Your task to perform on an android device: check storage Image 0: 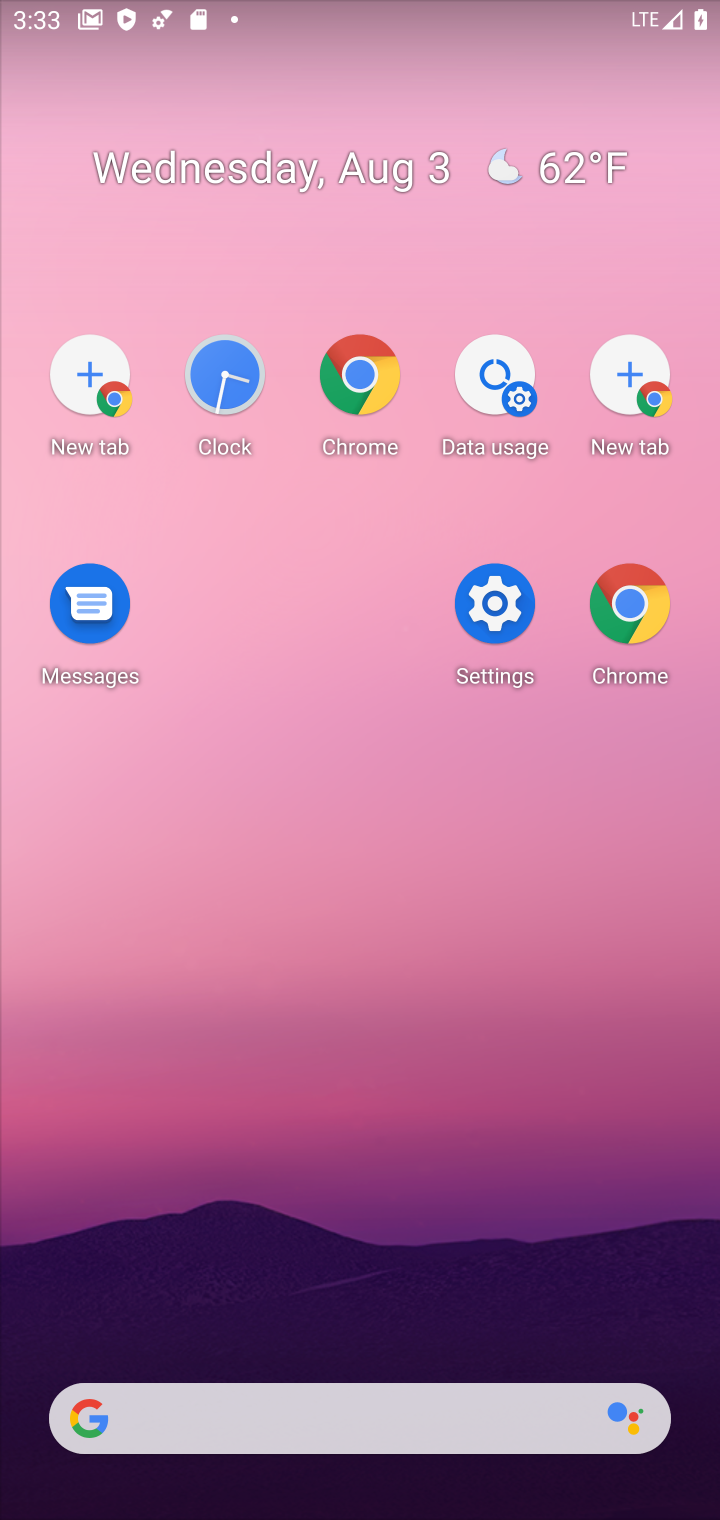
Step 0: press back button
Your task to perform on an android device: check storage Image 1: 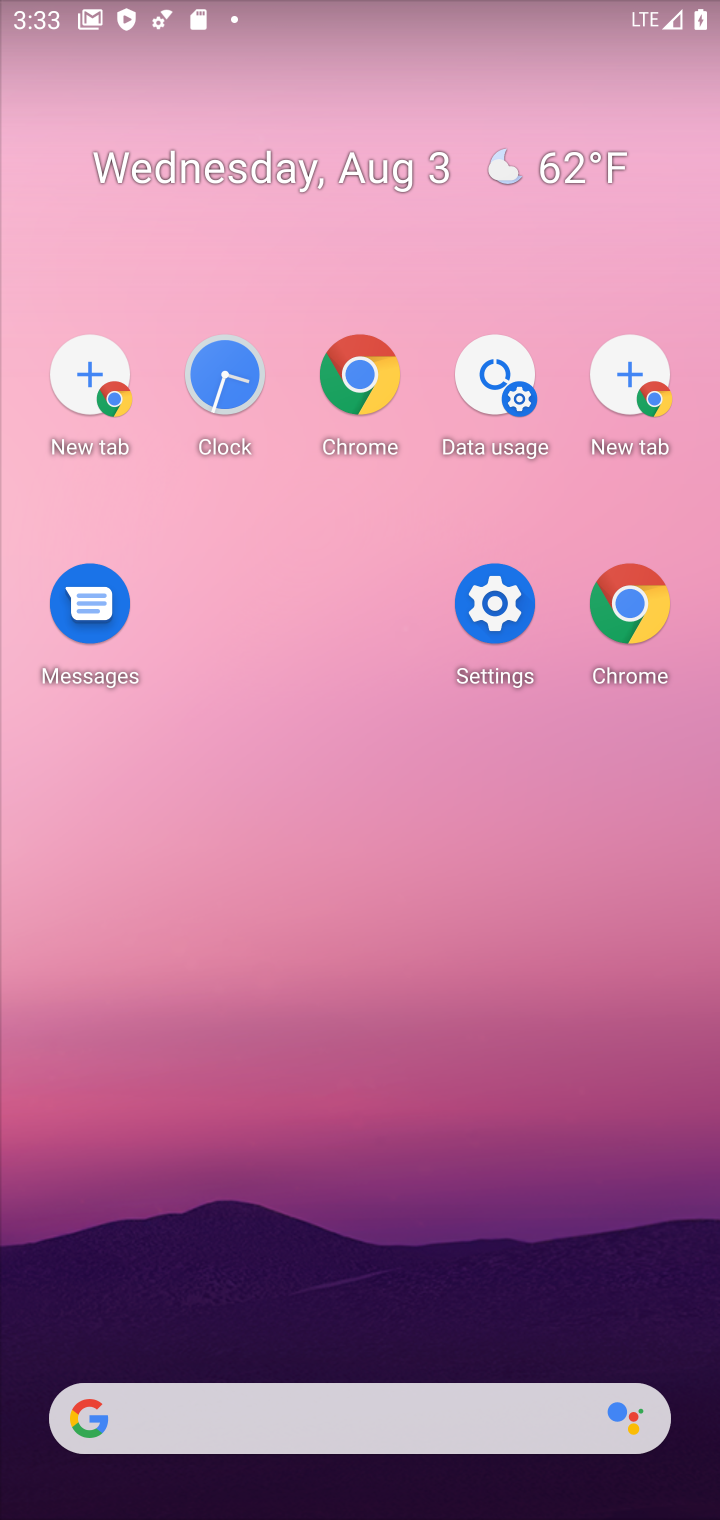
Step 1: click (691, 151)
Your task to perform on an android device: check storage Image 2: 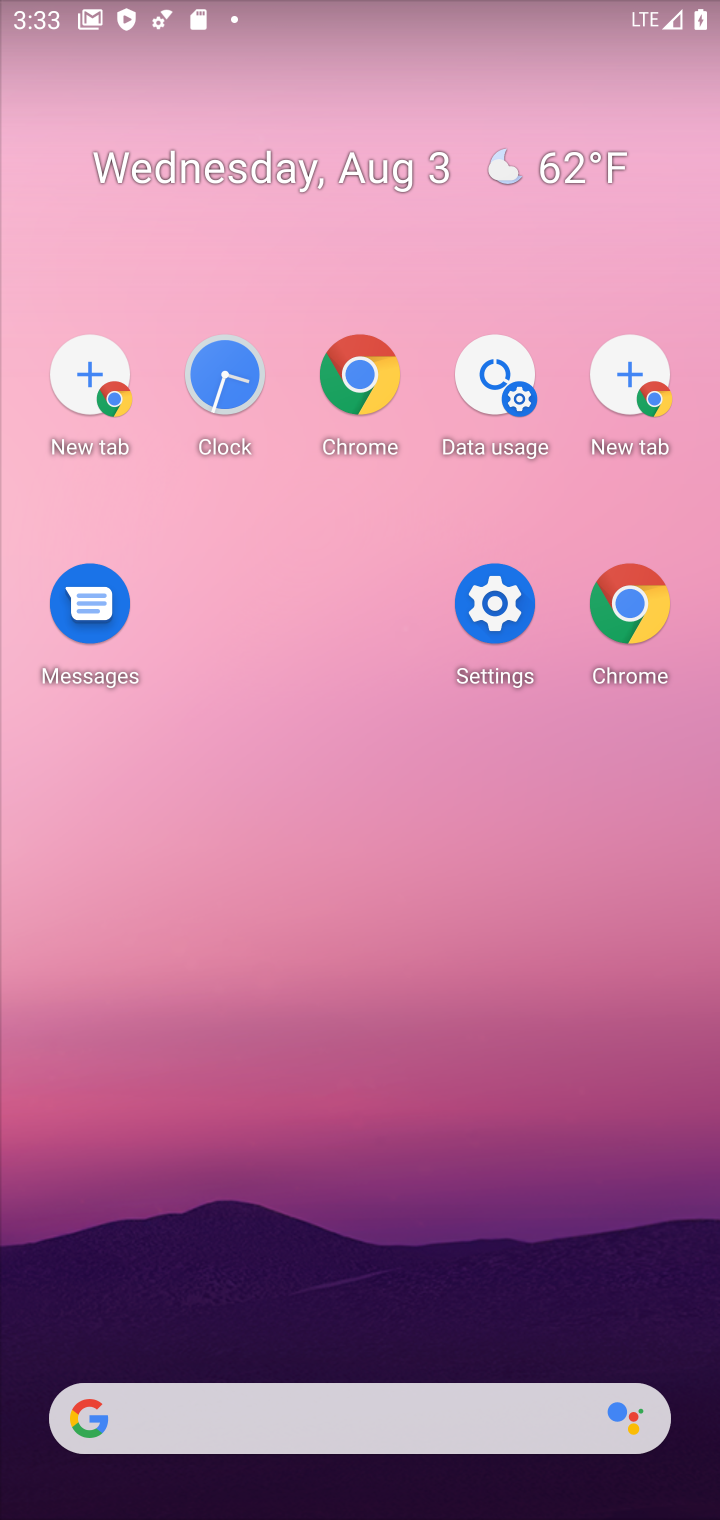
Step 2: drag from (440, 727) to (404, 138)
Your task to perform on an android device: check storage Image 3: 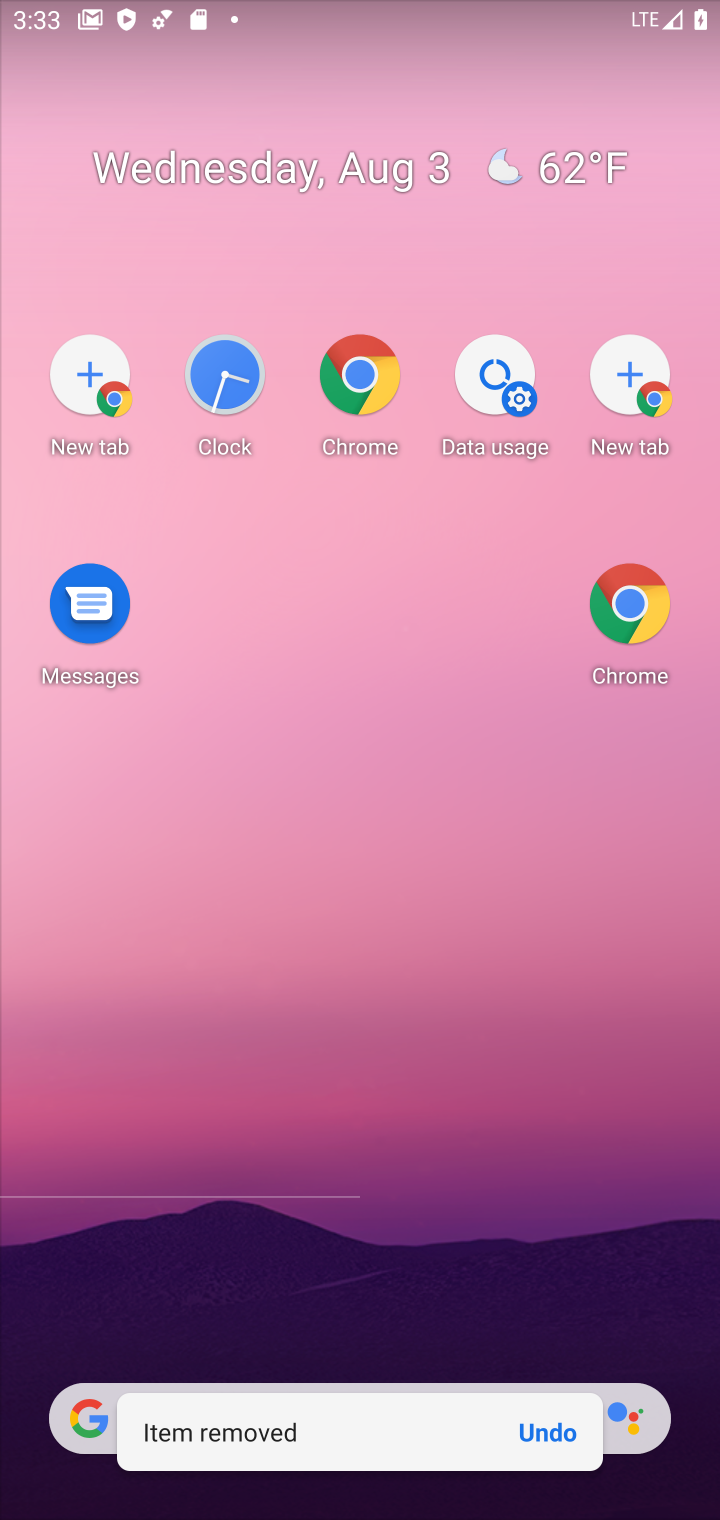
Step 3: drag from (128, 1235) to (478, 420)
Your task to perform on an android device: check storage Image 4: 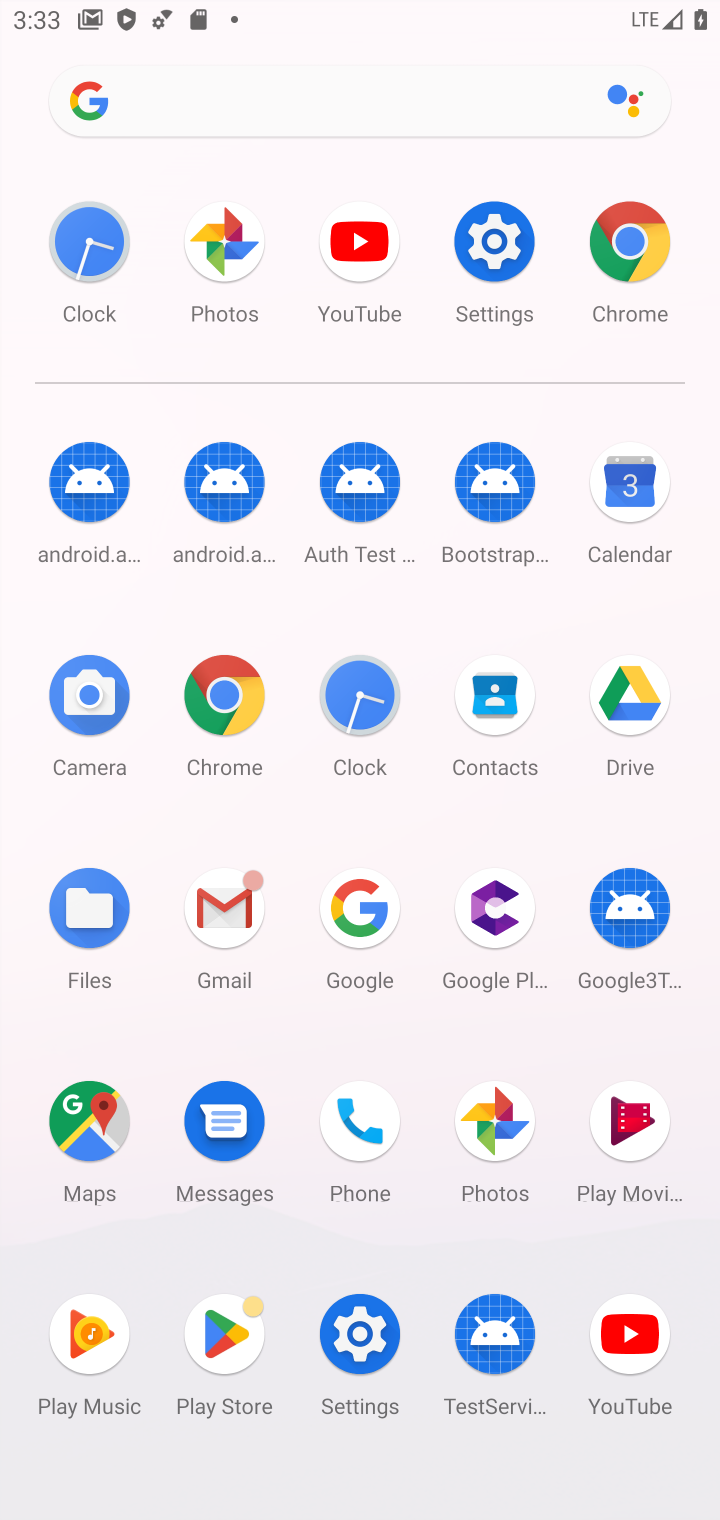
Step 4: click (365, 1308)
Your task to perform on an android device: check storage Image 5: 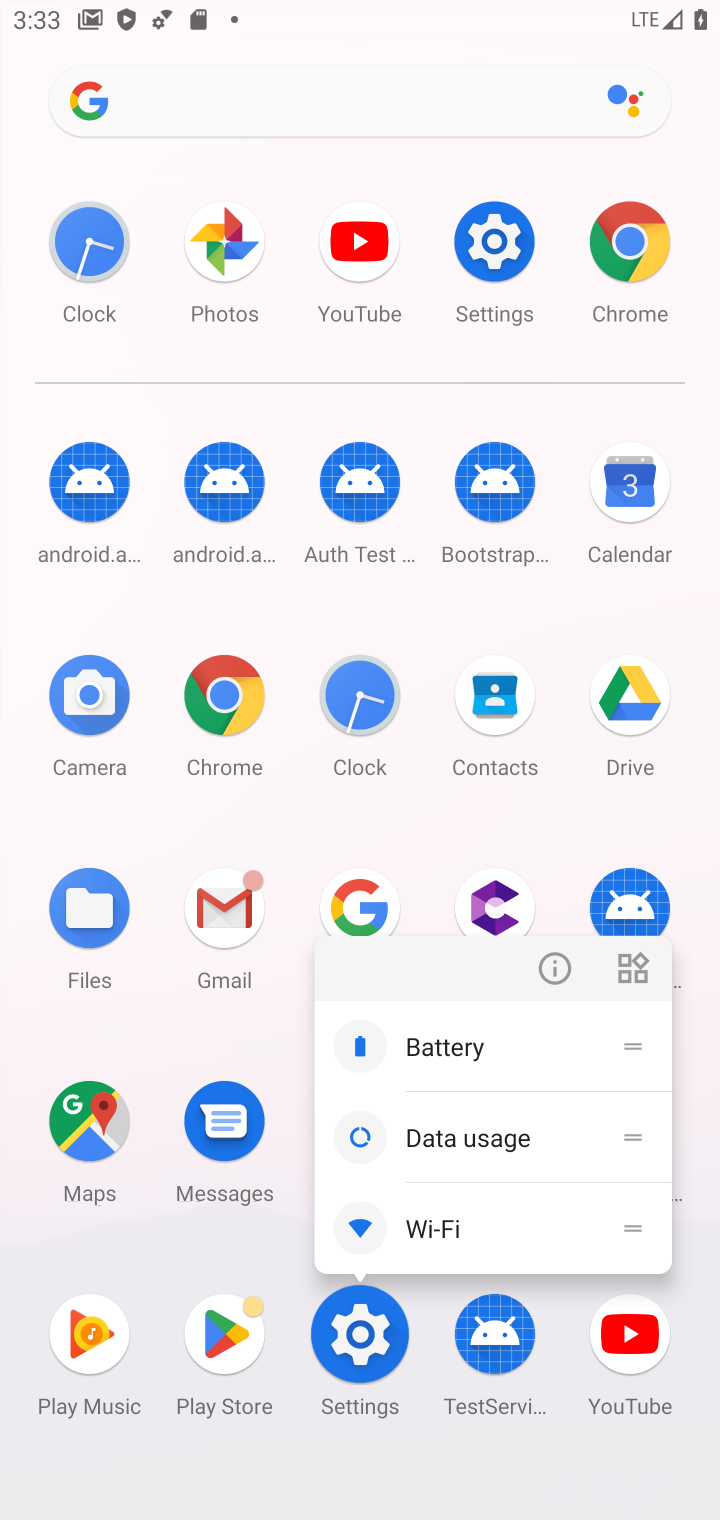
Step 5: click (368, 1312)
Your task to perform on an android device: check storage Image 6: 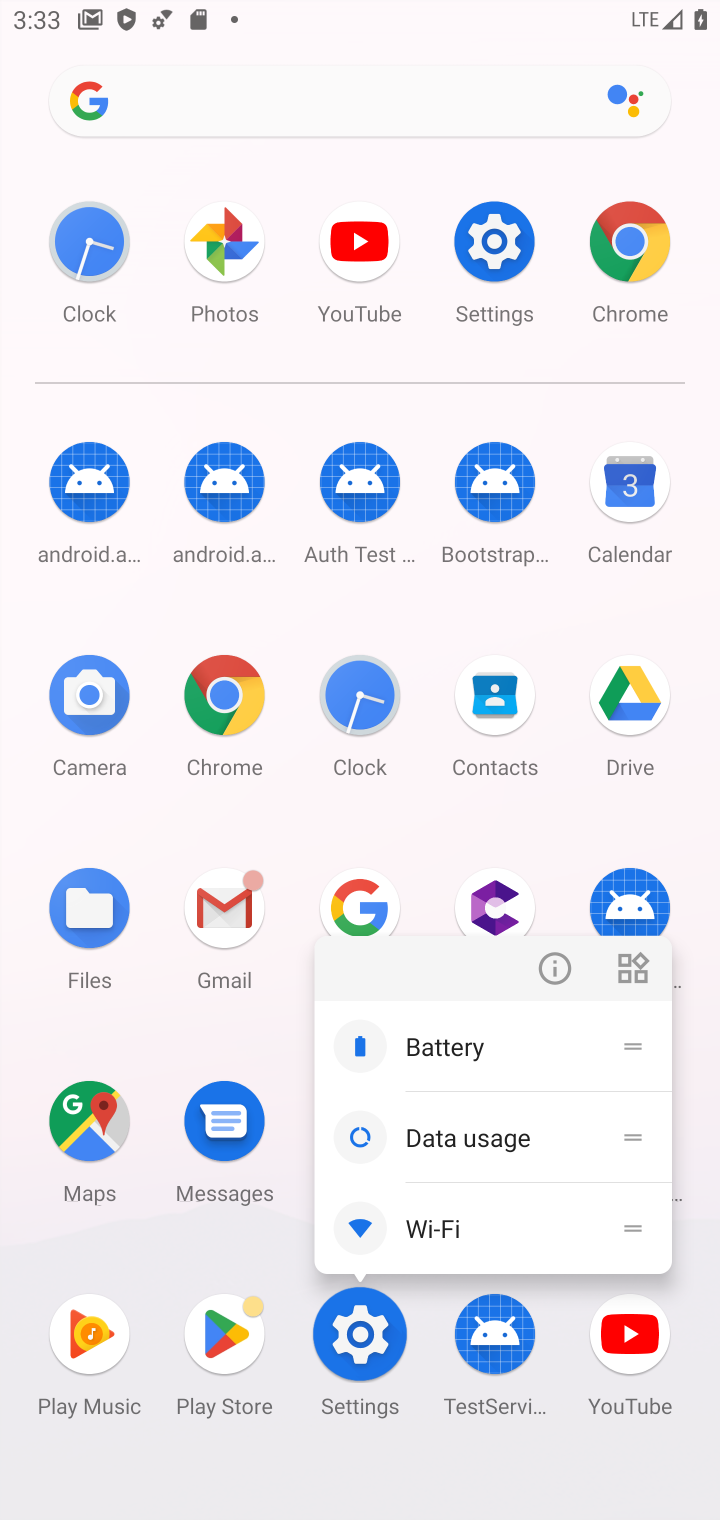
Step 6: click (374, 1318)
Your task to perform on an android device: check storage Image 7: 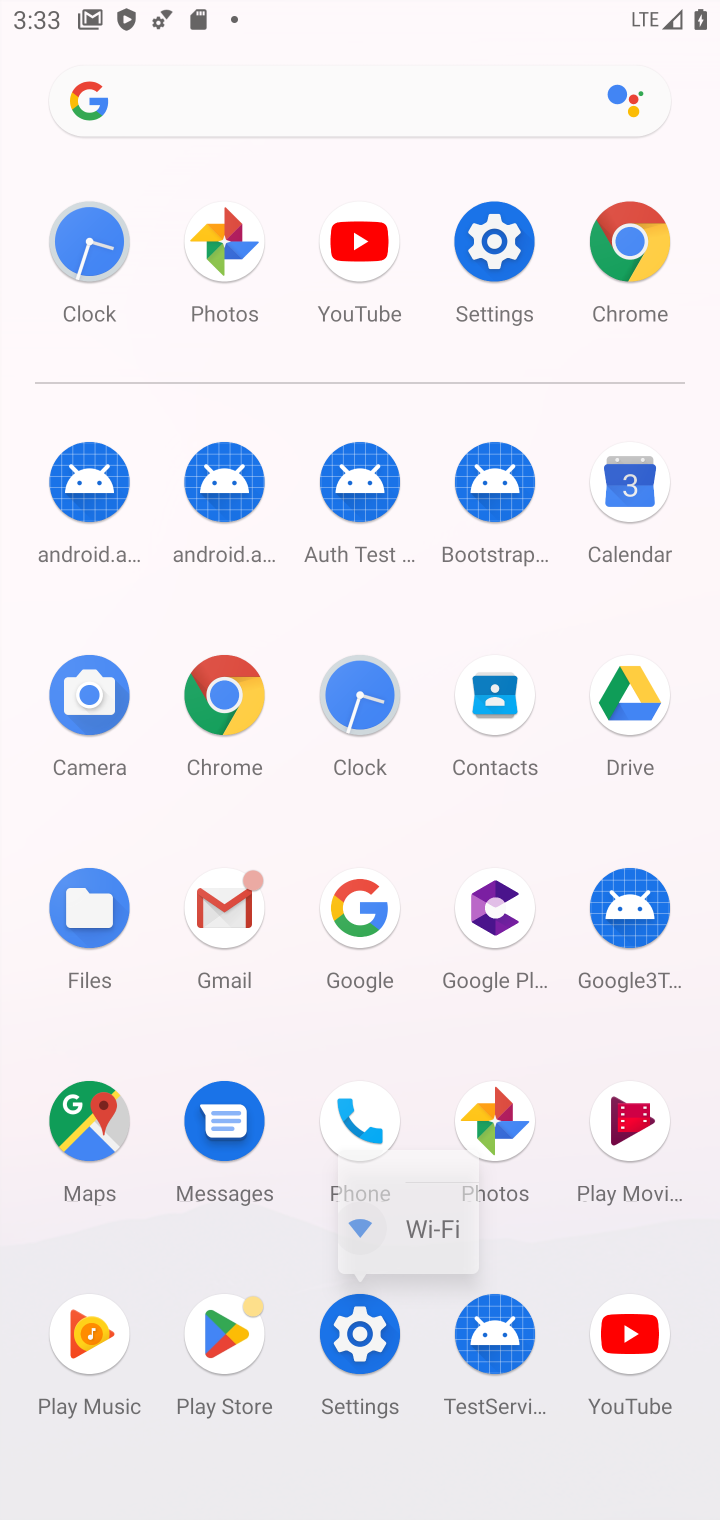
Step 7: click (376, 1319)
Your task to perform on an android device: check storage Image 8: 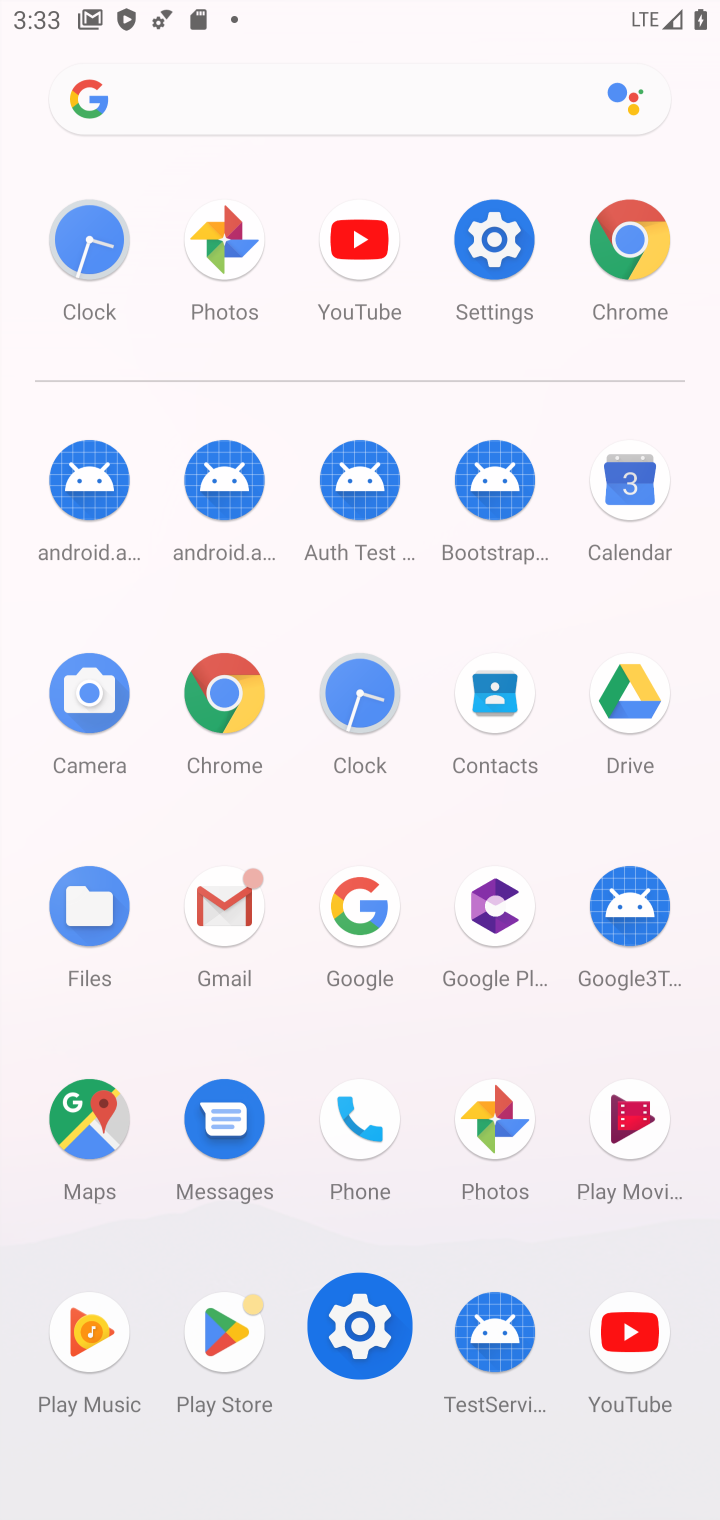
Step 8: click (376, 1322)
Your task to perform on an android device: check storage Image 9: 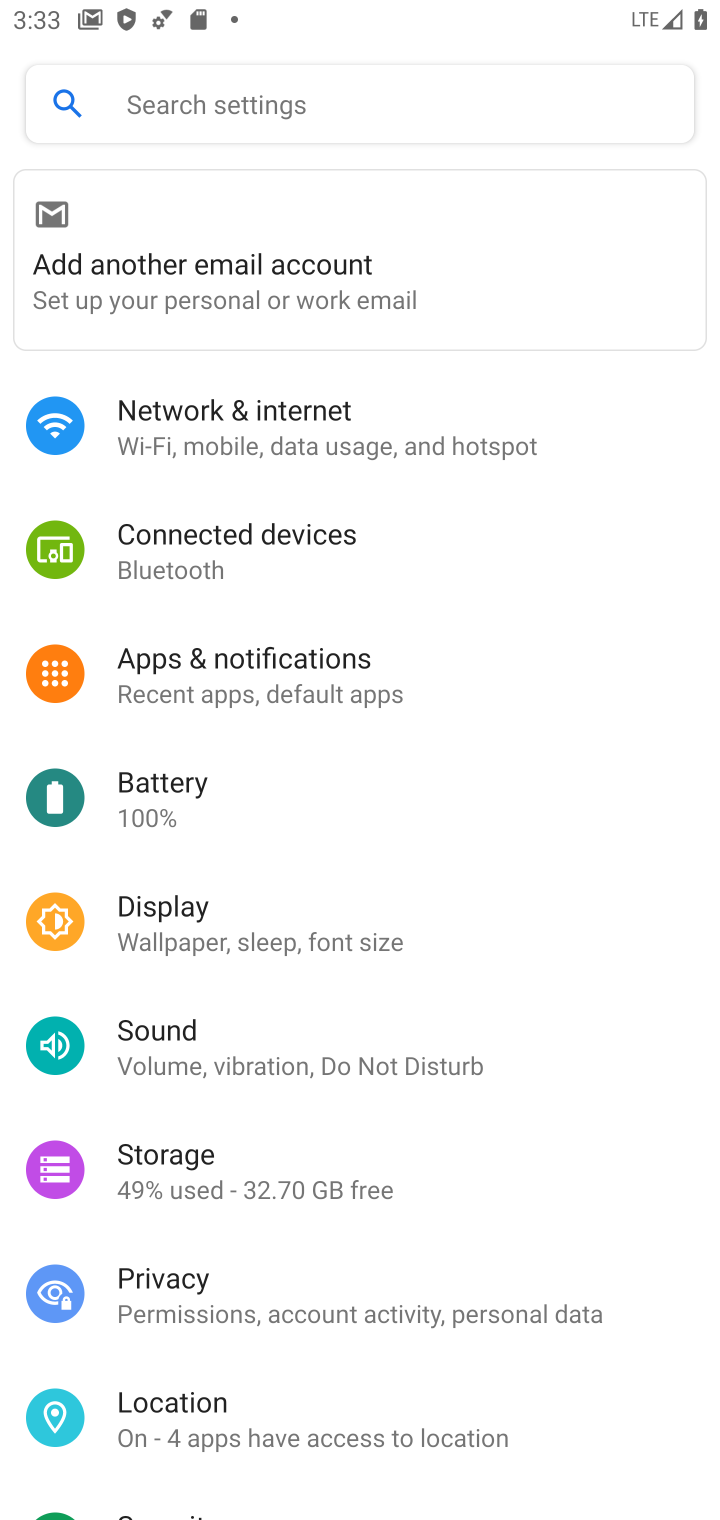
Step 9: click (168, 1190)
Your task to perform on an android device: check storage Image 10: 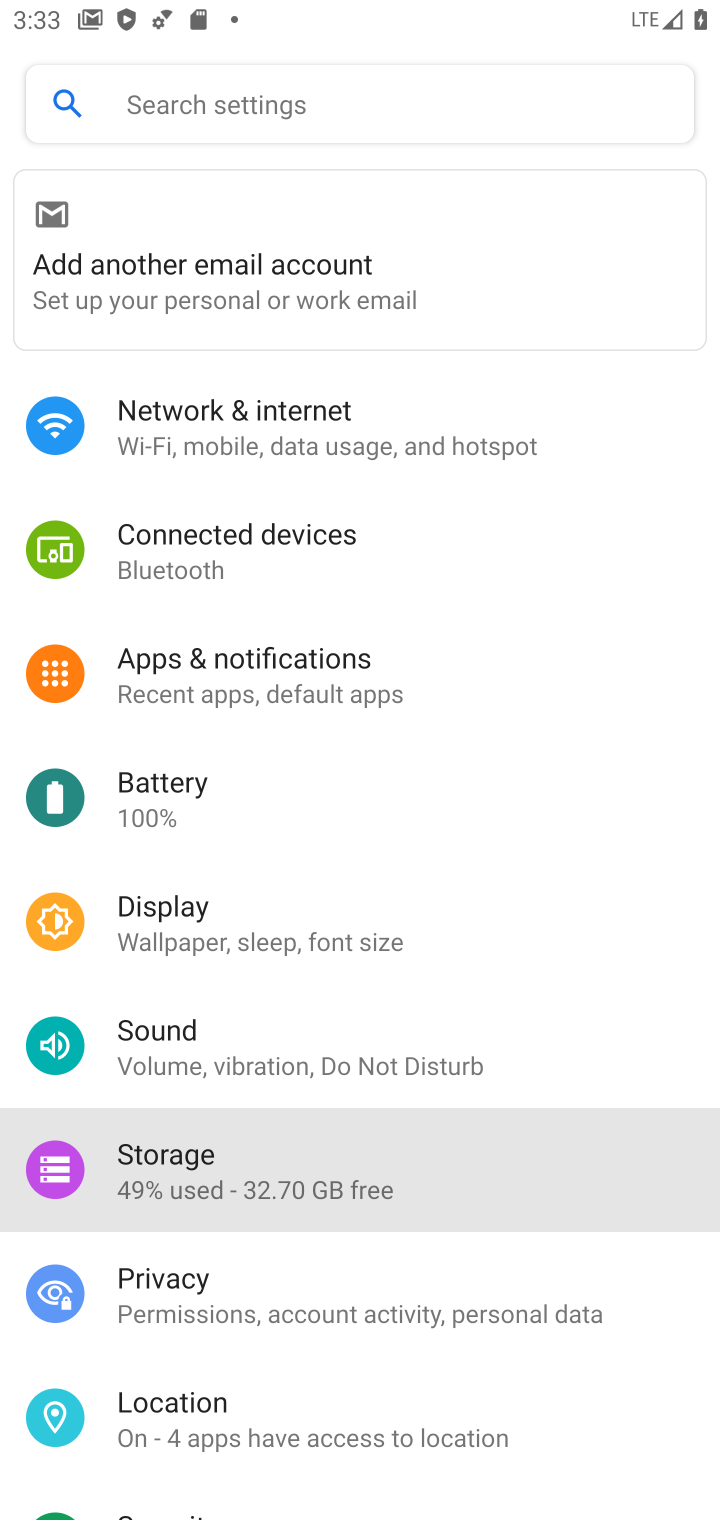
Step 10: click (168, 1190)
Your task to perform on an android device: check storage Image 11: 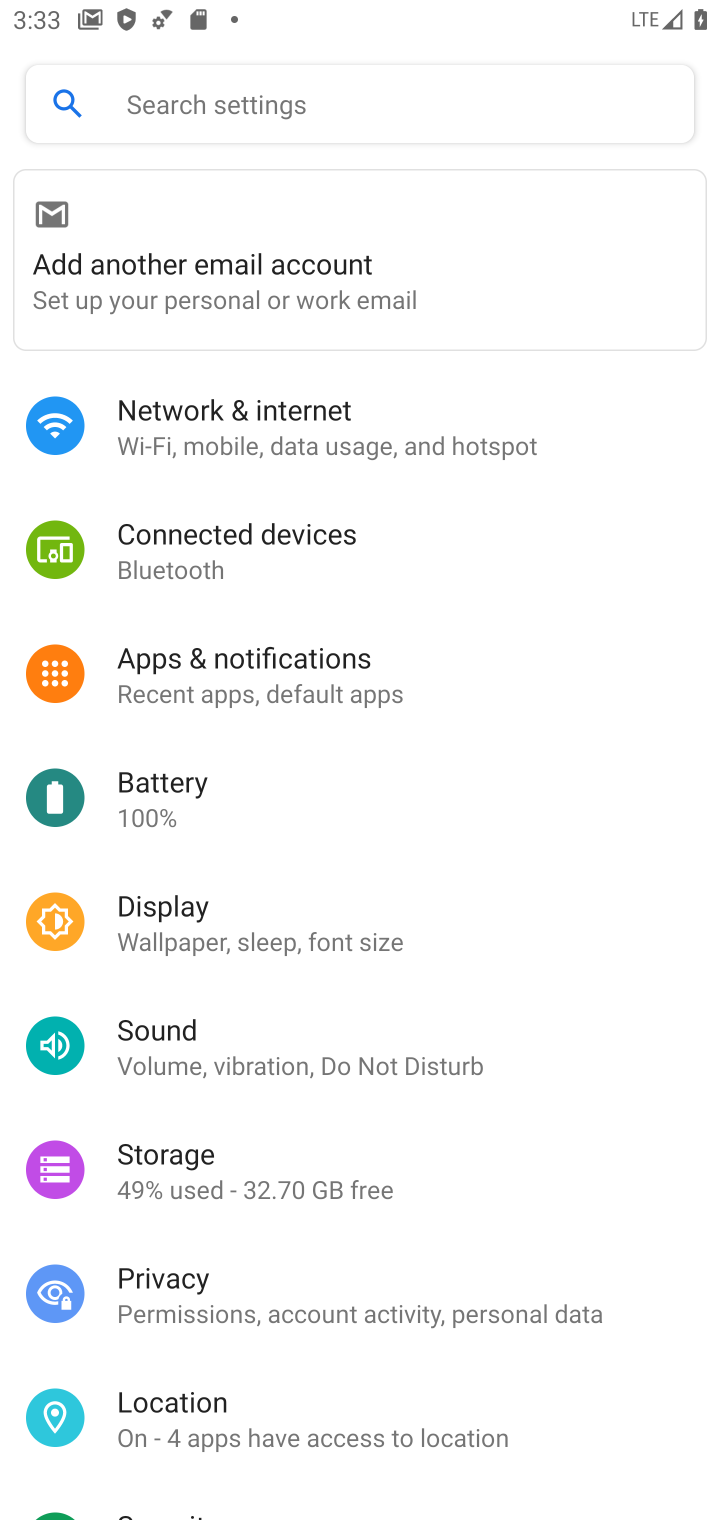
Step 11: click (166, 1192)
Your task to perform on an android device: check storage Image 12: 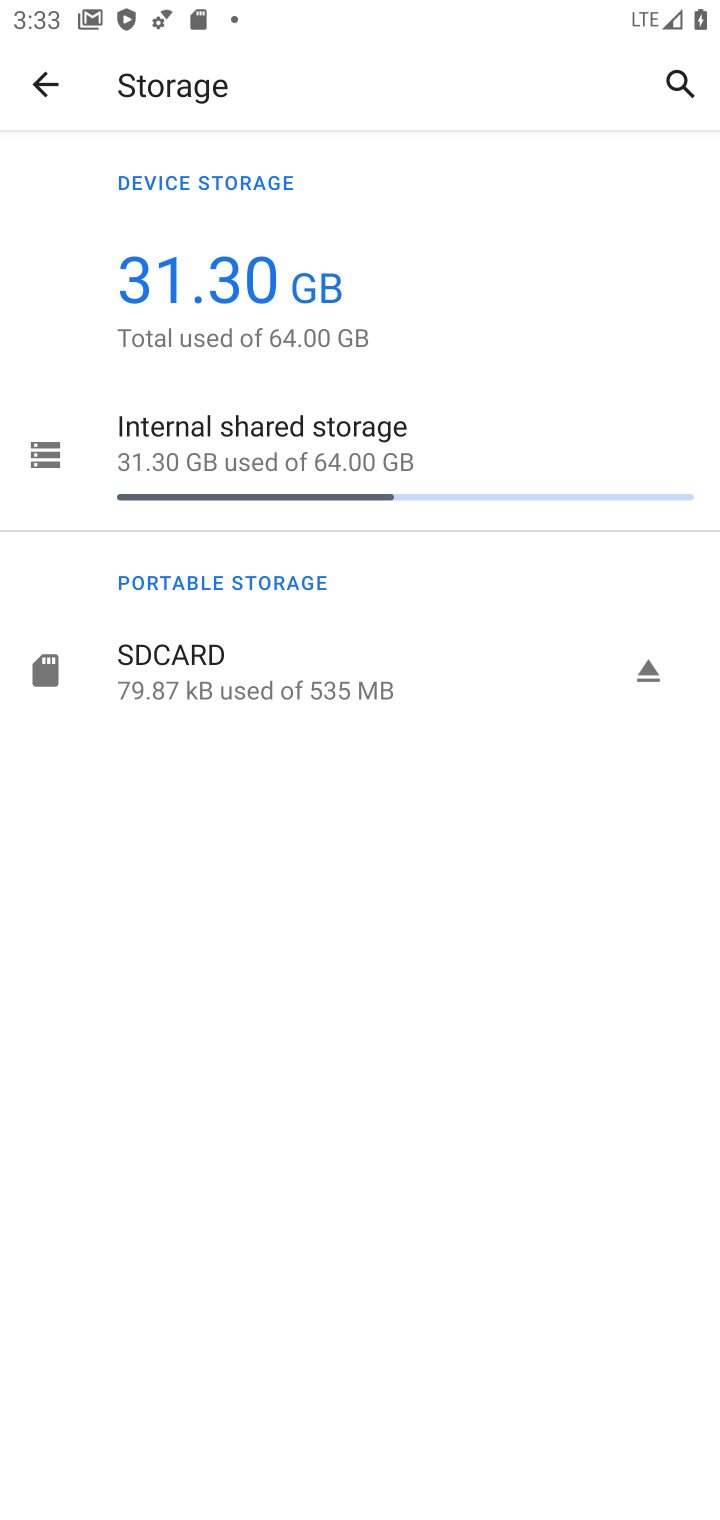
Step 12: click (169, 1177)
Your task to perform on an android device: check storage Image 13: 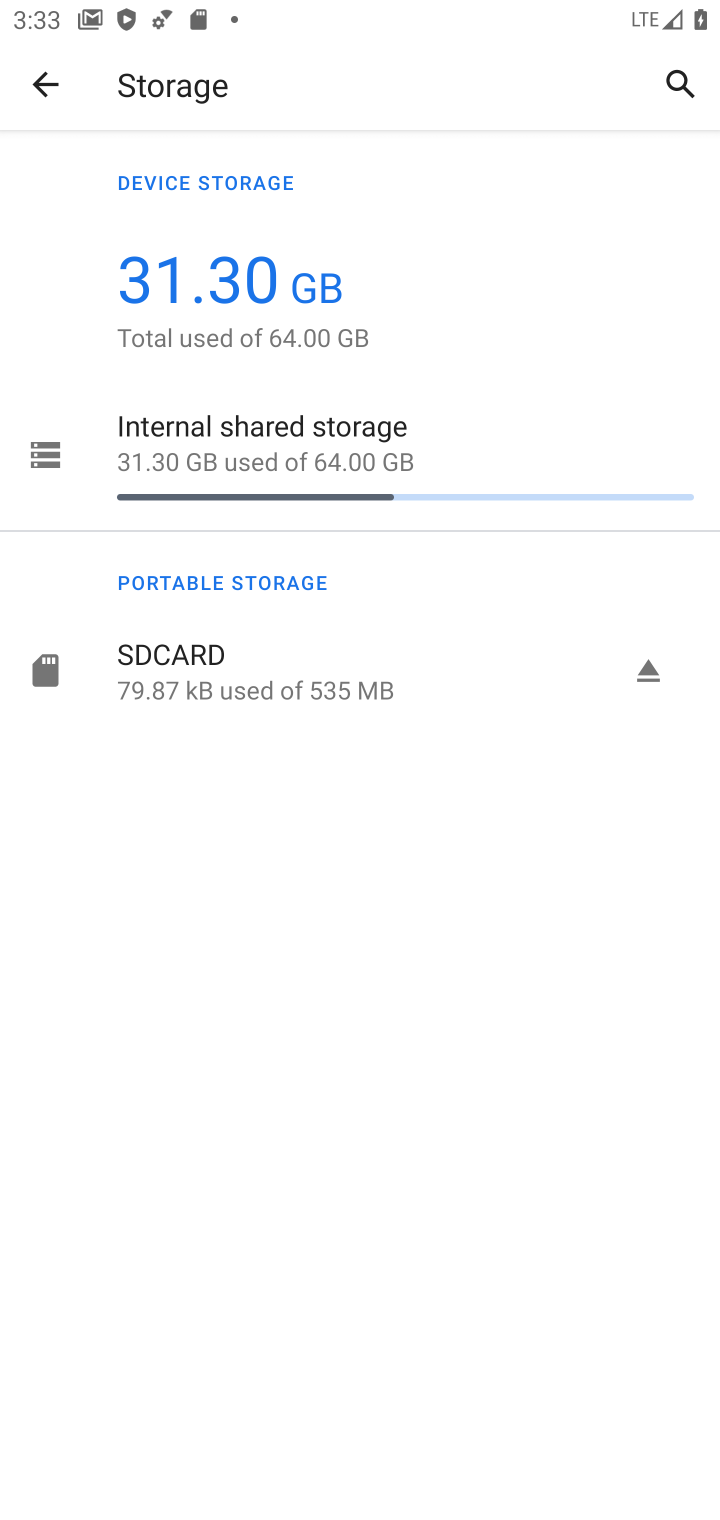
Step 13: click (169, 1177)
Your task to perform on an android device: check storage Image 14: 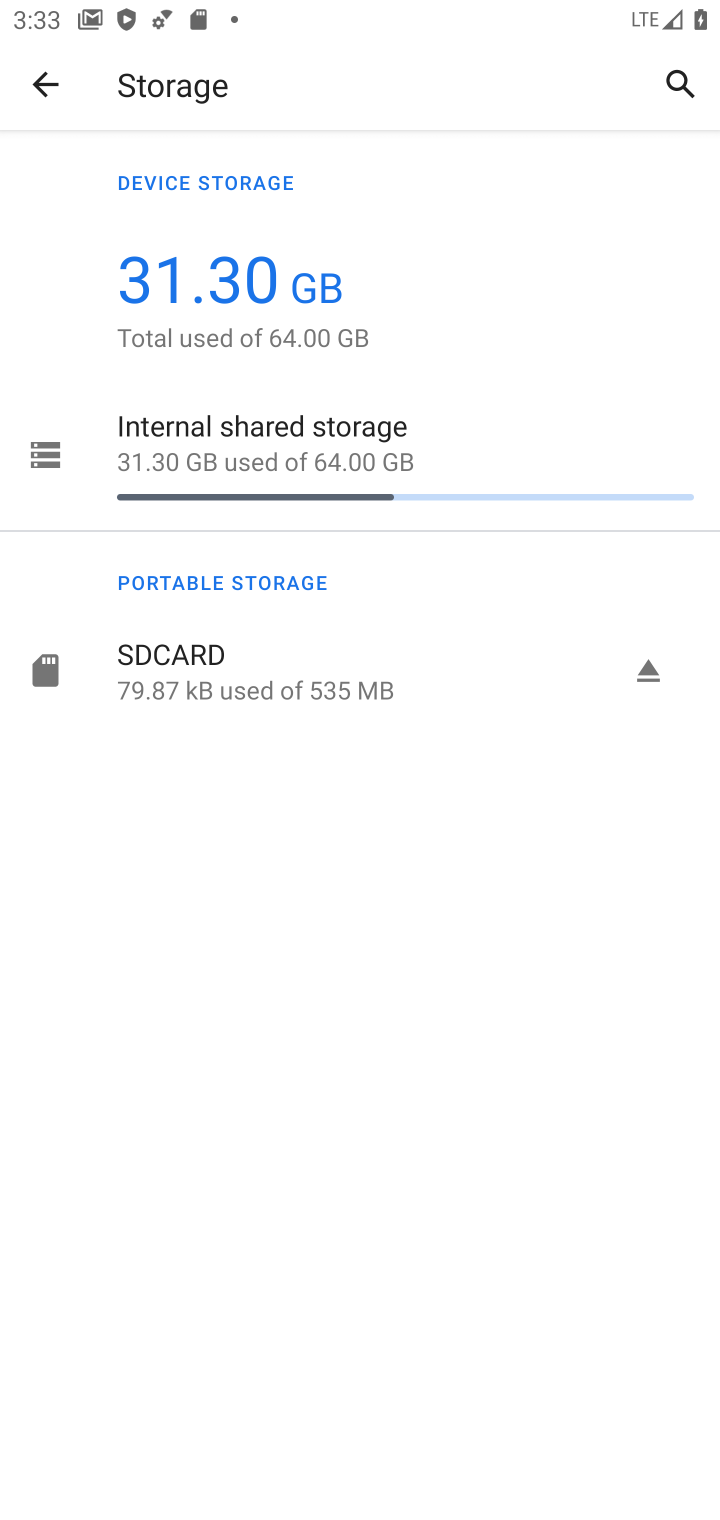
Step 14: task complete